Your task to perform on an android device: What's on my calendar tomorrow? Image 0: 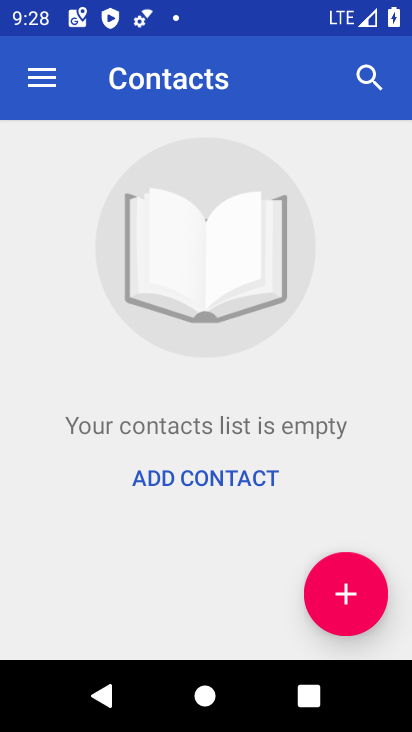
Step 0: press home button
Your task to perform on an android device: What's on my calendar tomorrow? Image 1: 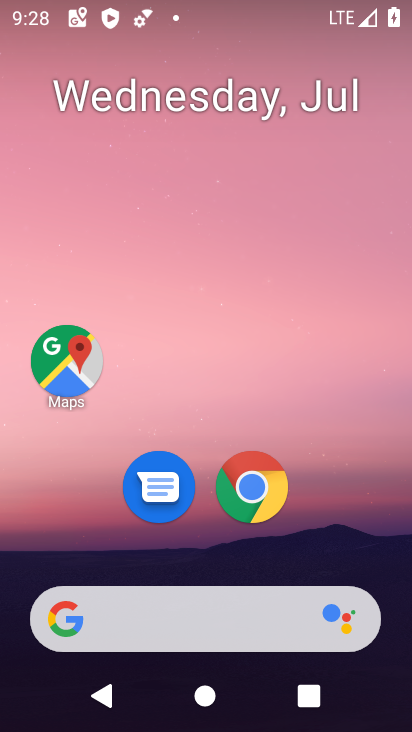
Step 1: drag from (226, 547) to (63, 88)
Your task to perform on an android device: What's on my calendar tomorrow? Image 2: 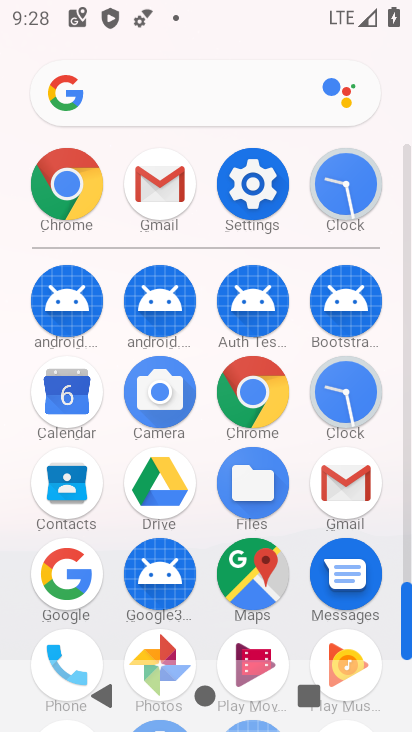
Step 2: click (85, 418)
Your task to perform on an android device: What's on my calendar tomorrow? Image 3: 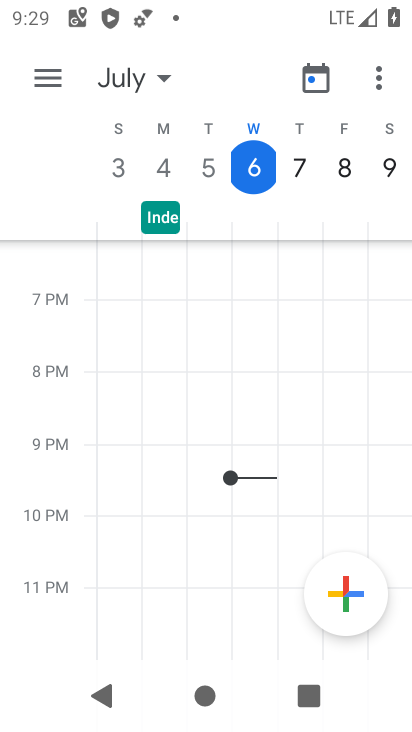
Step 3: click (283, 176)
Your task to perform on an android device: What's on my calendar tomorrow? Image 4: 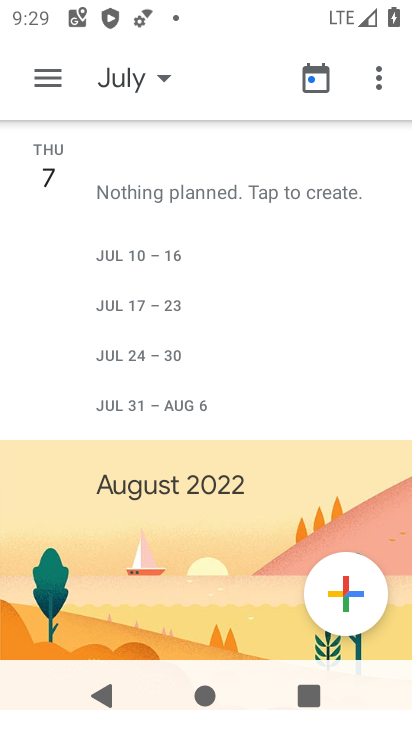
Step 4: task complete